Your task to perform on an android device: turn pop-ups off in chrome Image 0: 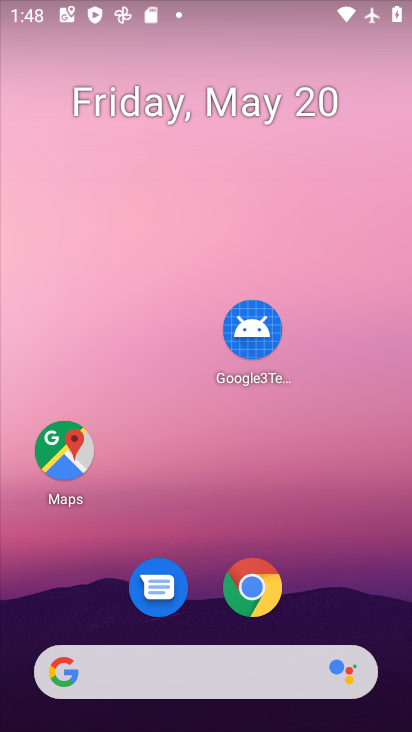
Step 0: click (250, 585)
Your task to perform on an android device: turn pop-ups off in chrome Image 1: 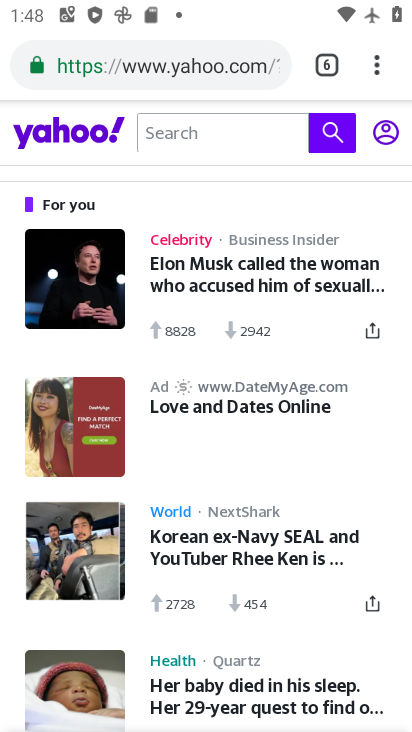
Step 1: click (375, 56)
Your task to perform on an android device: turn pop-ups off in chrome Image 2: 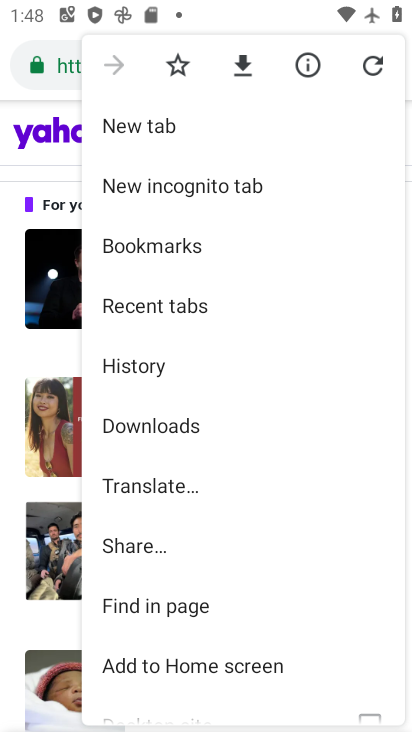
Step 2: click (375, 56)
Your task to perform on an android device: turn pop-ups off in chrome Image 3: 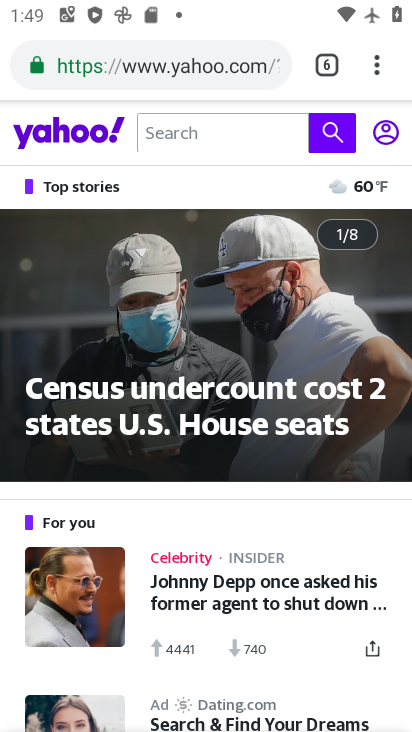
Step 3: click (374, 56)
Your task to perform on an android device: turn pop-ups off in chrome Image 4: 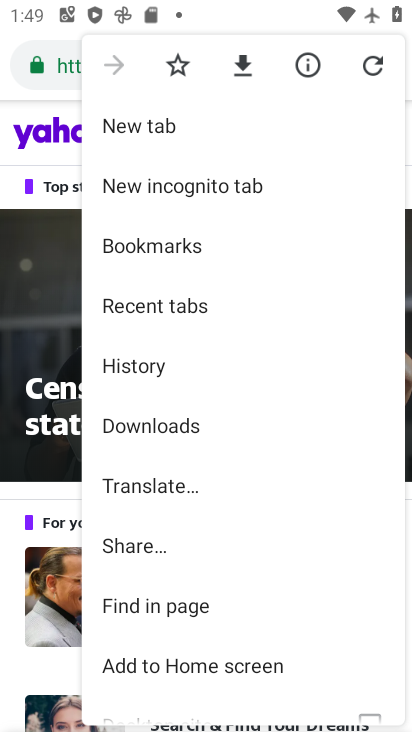
Step 4: drag from (292, 481) to (263, 80)
Your task to perform on an android device: turn pop-ups off in chrome Image 5: 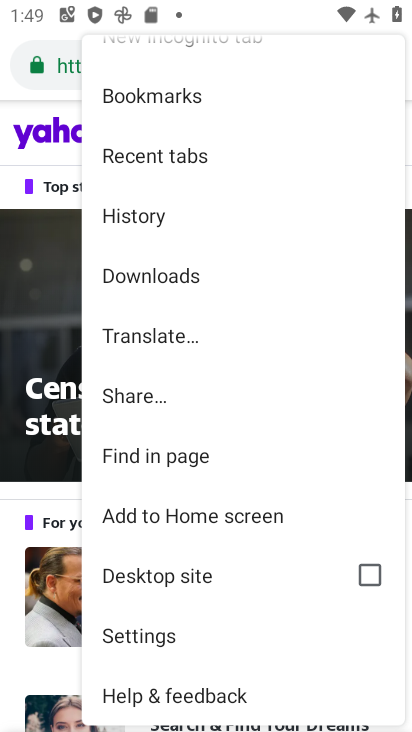
Step 5: click (139, 619)
Your task to perform on an android device: turn pop-ups off in chrome Image 6: 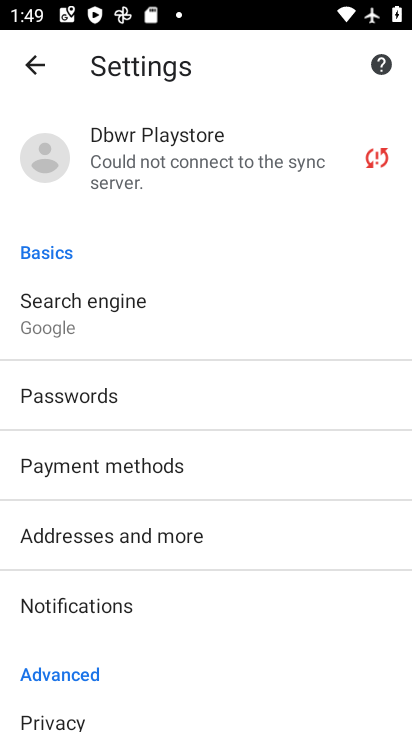
Step 6: drag from (260, 481) to (232, 65)
Your task to perform on an android device: turn pop-ups off in chrome Image 7: 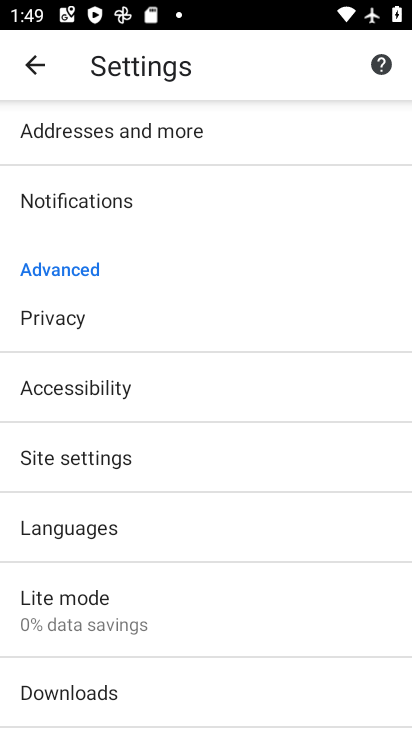
Step 7: click (96, 459)
Your task to perform on an android device: turn pop-ups off in chrome Image 8: 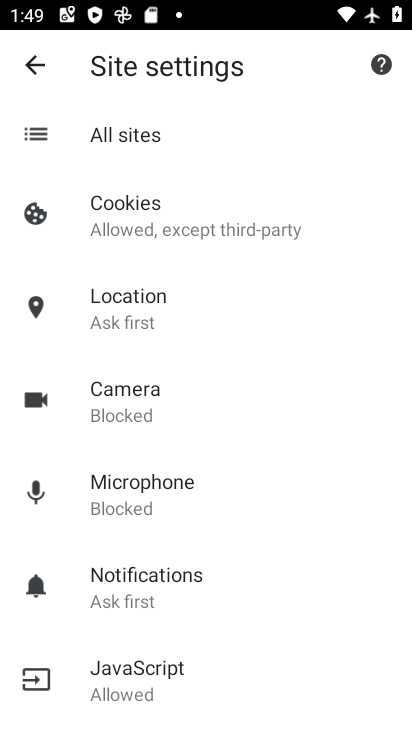
Step 8: drag from (265, 573) to (254, 170)
Your task to perform on an android device: turn pop-ups off in chrome Image 9: 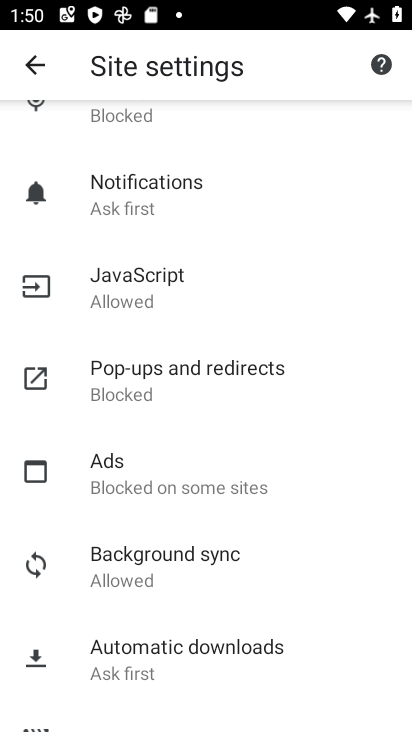
Step 9: click (208, 360)
Your task to perform on an android device: turn pop-ups off in chrome Image 10: 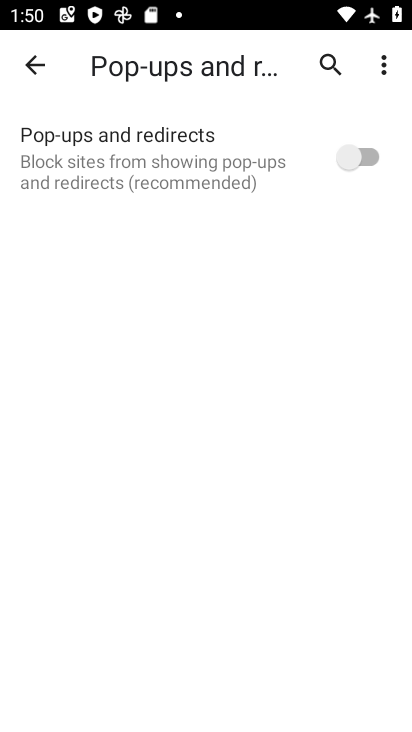
Step 10: task complete